Your task to perform on an android device: turn off picture-in-picture Image 0: 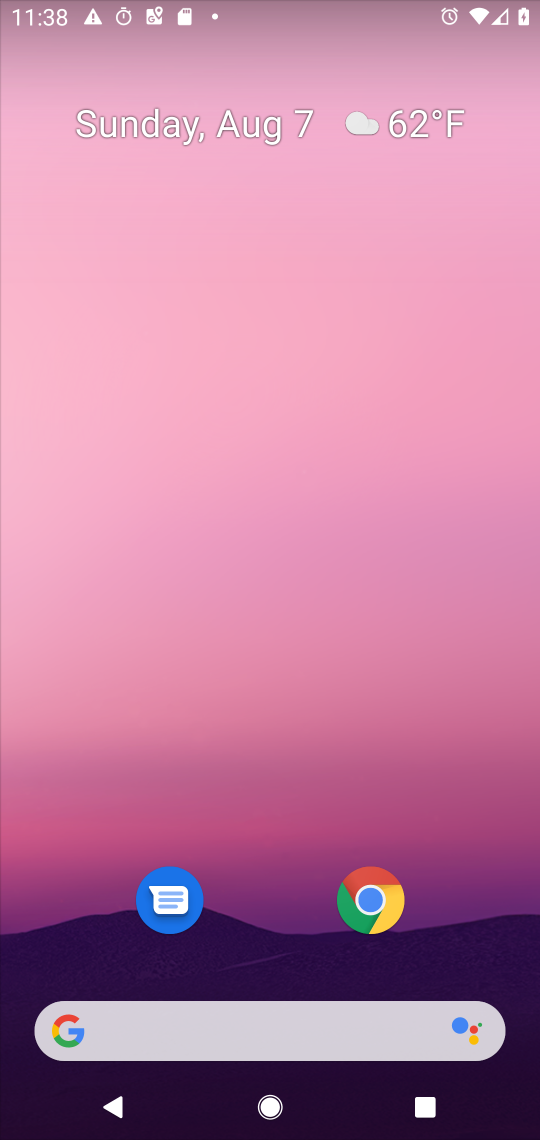
Step 0: press home button
Your task to perform on an android device: turn off picture-in-picture Image 1: 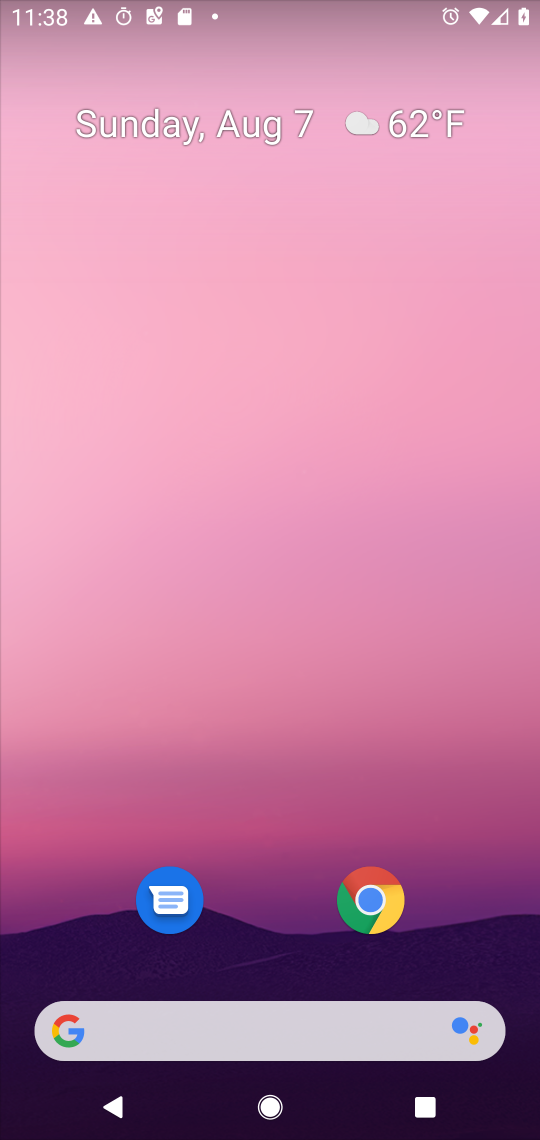
Step 1: click (367, 896)
Your task to perform on an android device: turn off picture-in-picture Image 2: 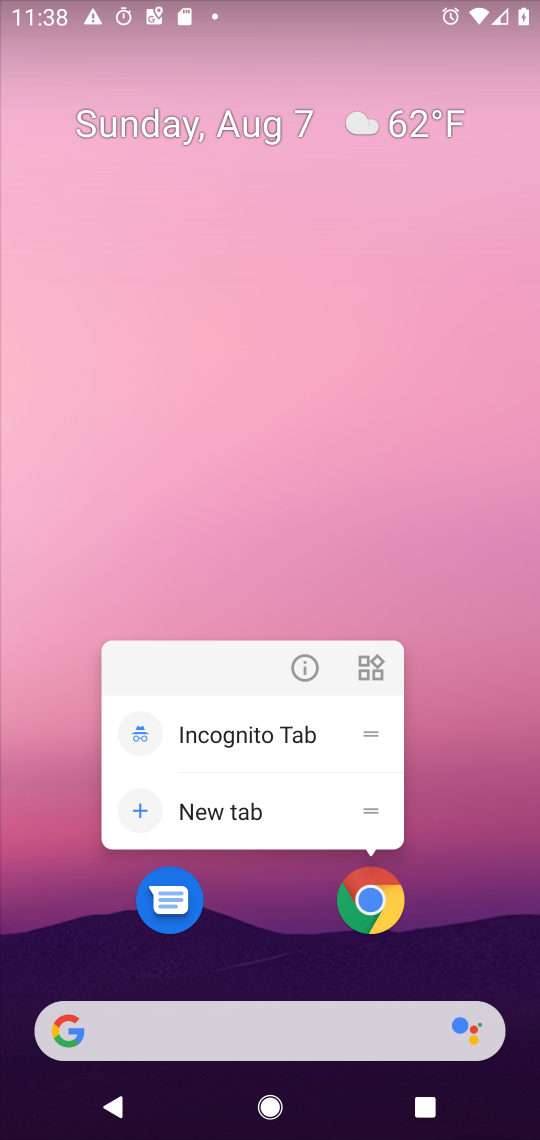
Step 2: click (298, 663)
Your task to perform on an android device: turn off picture-in-picture Image 3: 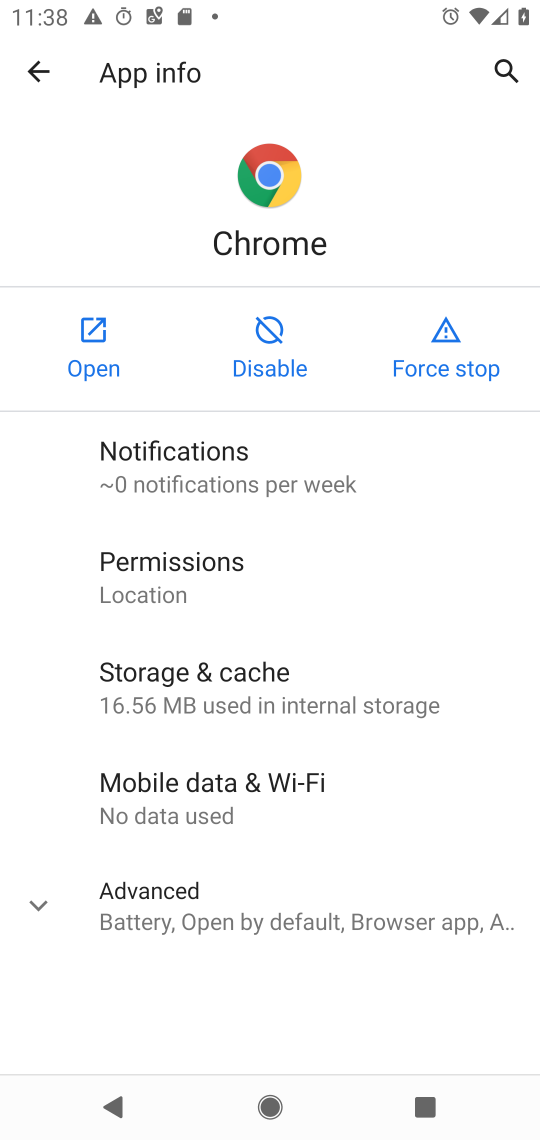
Step 3: click (34, 900)
Your task to perform on an android device: turn off picture-in-picture Image 4: 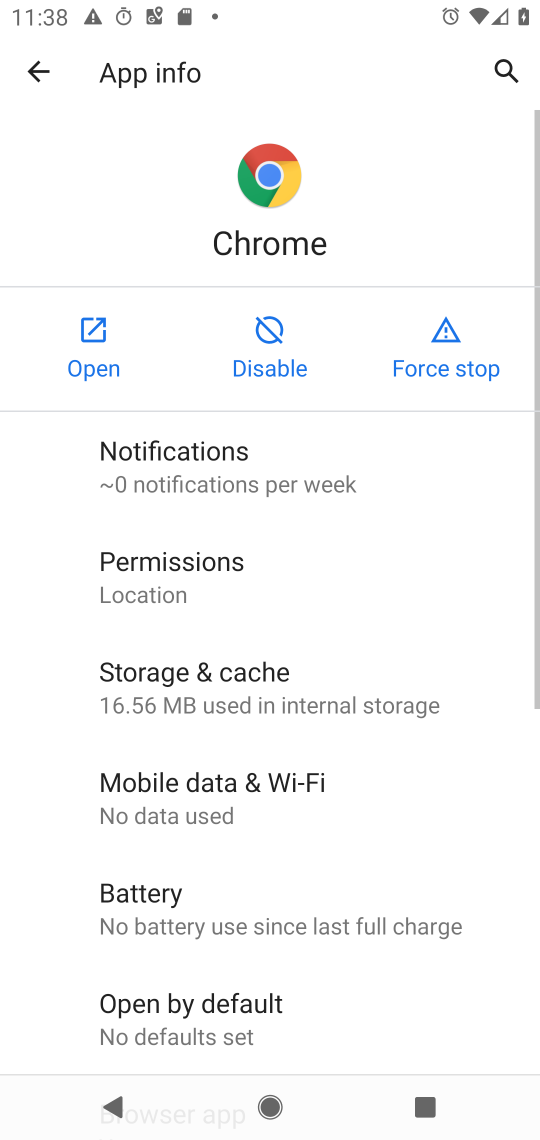
Step 4: drag from (272, 962) to (283, 244)
Your task to perform on an android device: turn off picture-in-picture Image 5: 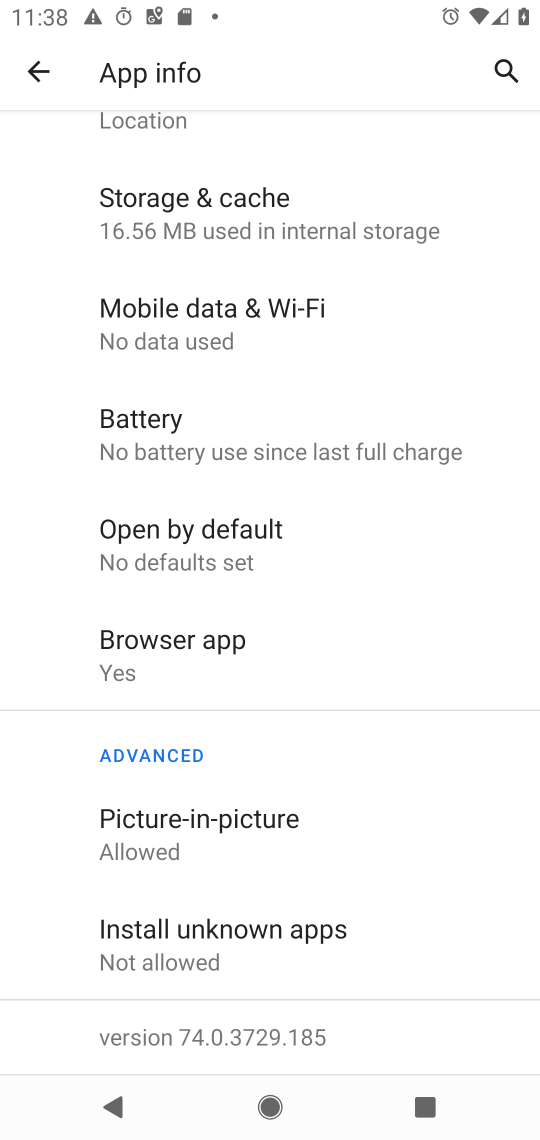
Step 5: click (186, 826)
Your task to perform on an android device: turn off picture-in-picture Image 6: 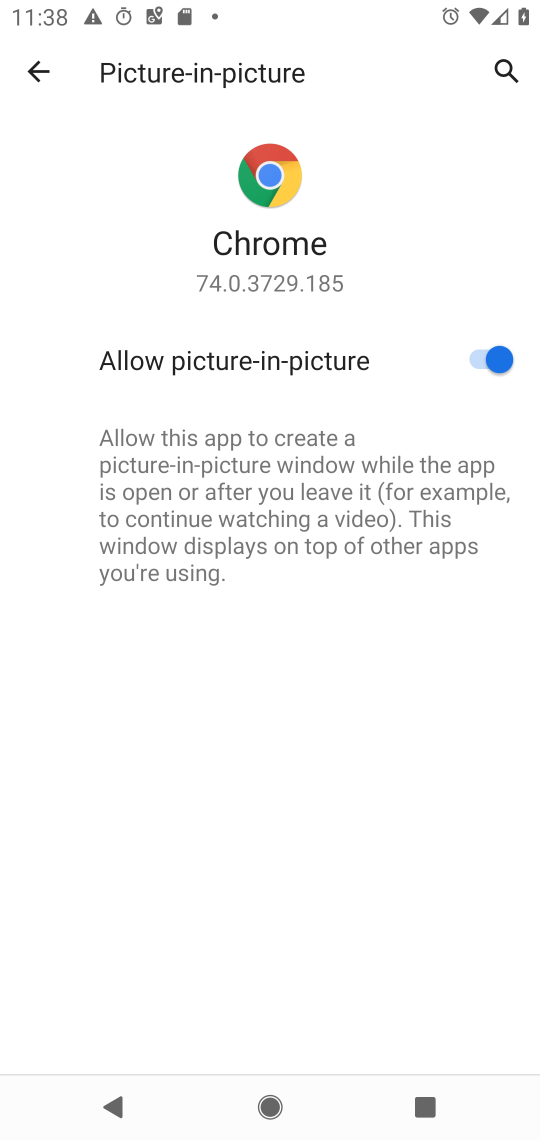
Step 6: click (484, 340)
Your task to perform on an android device: turn off picture-in-picture Image 7: 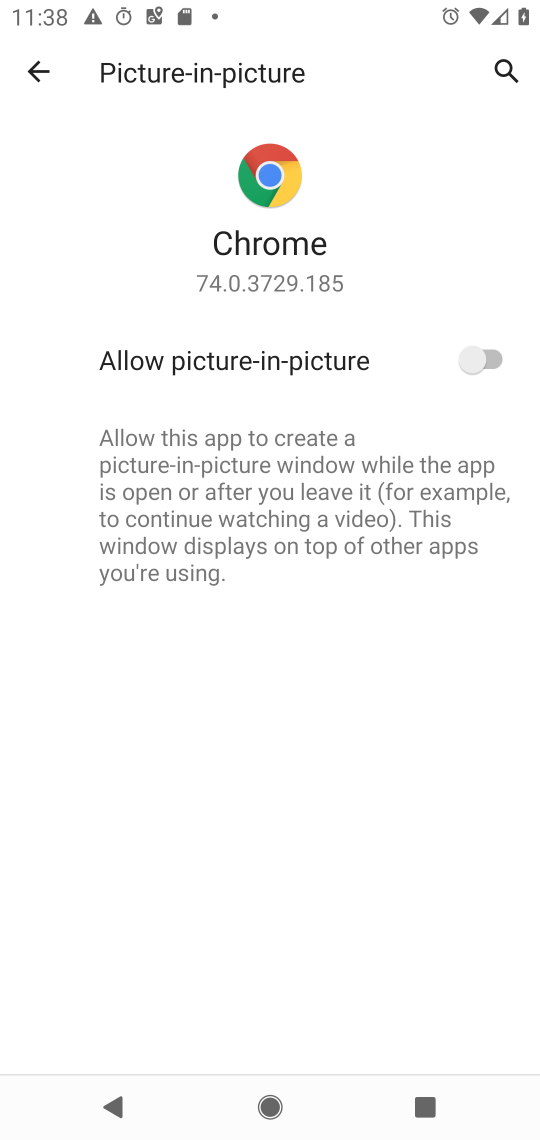
Step 7: task complete